Your task to perform on an android device: Open display settings Image 0: 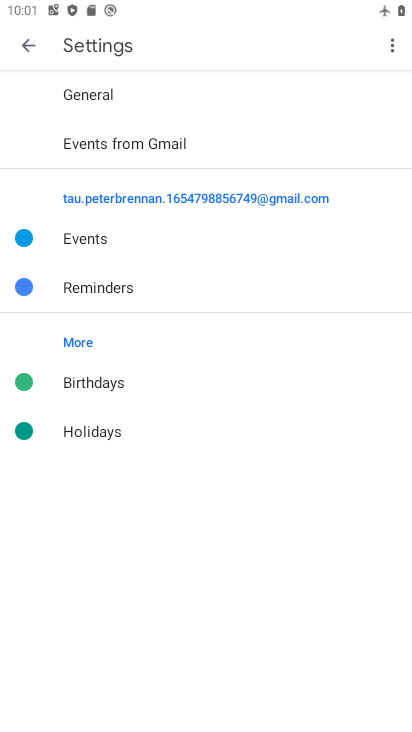
Step 0: press home button
Your task to perform on an android device: Open display settings Image 1: 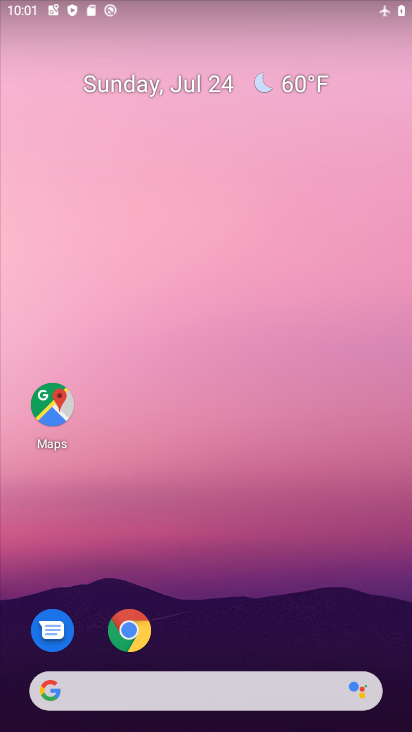
Step 1: drag from (218, 625) to (196, 16)
Your task to perform on an android device: Open display settings Image 2: 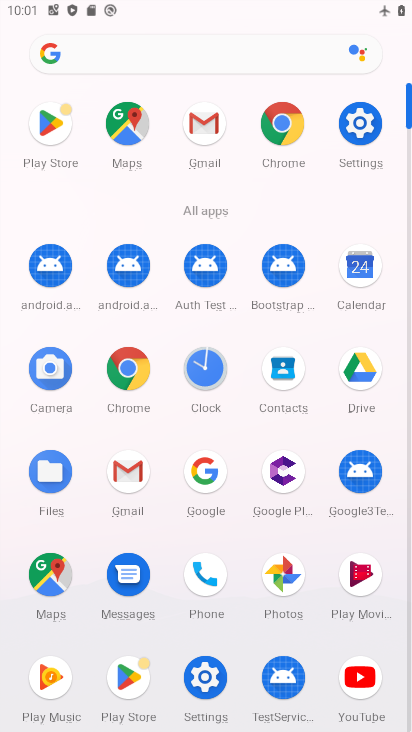
Step 2: click (208, 685)
Your task to perform on an android device: Open display settings Image 3: 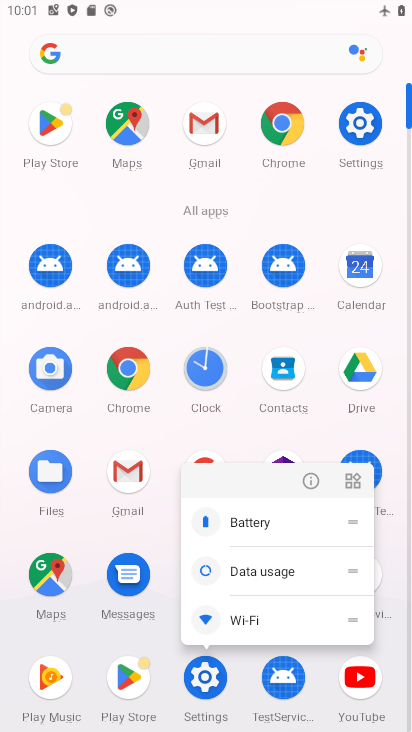
Step 3: click (193, 673)
Your task to perform on an android device: Open display settings Image 4: 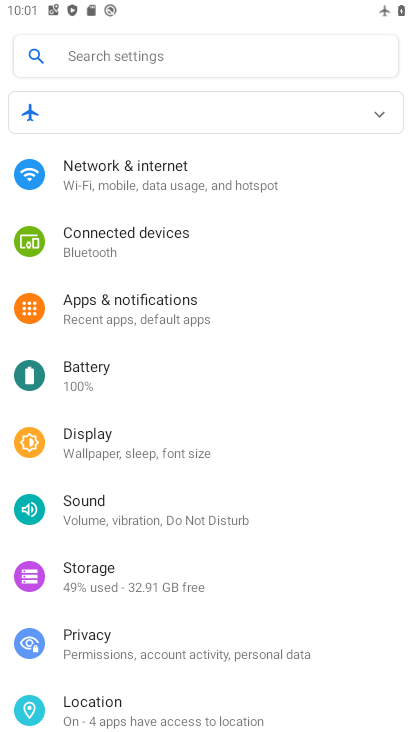
Step 4: click (109, 449)
Your task to perform on an android device: Open display settings Image 5: 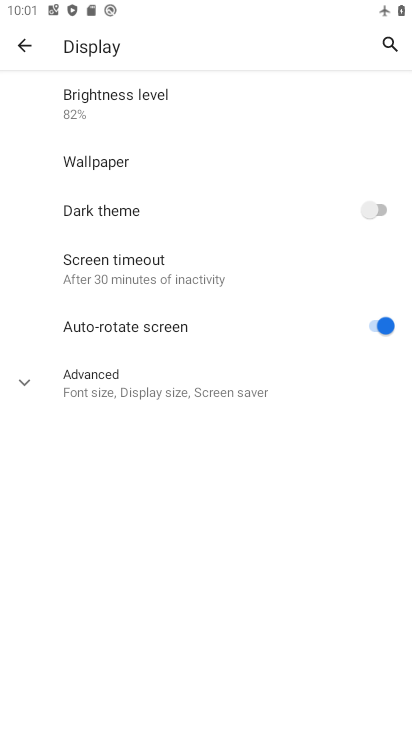
Step 5: task complete